Your task to perform on an android device: toggle notifications settings in the gmail app Image 0: 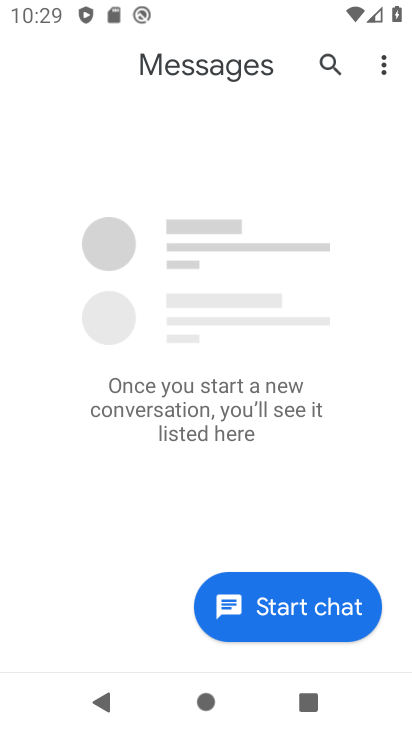
Step 0: press back button
Your task to perform on an android device: toggle notifications settings in the gmail app Image 1: 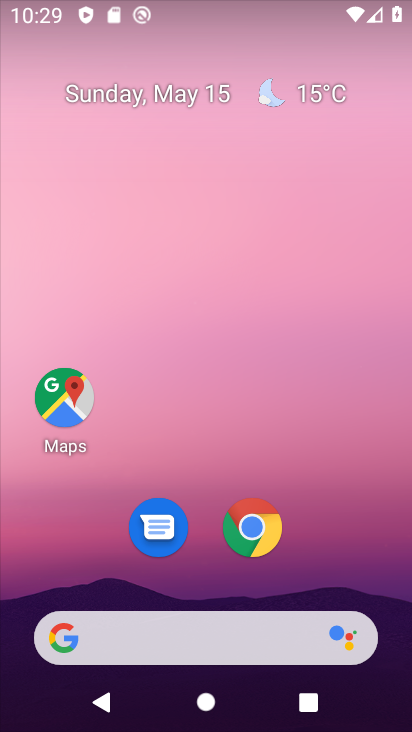
Step 1: drag from (333, 564) to (309, 71)
Your task to perform on an android device: toggle notifications settings in the gmail app Image 2: 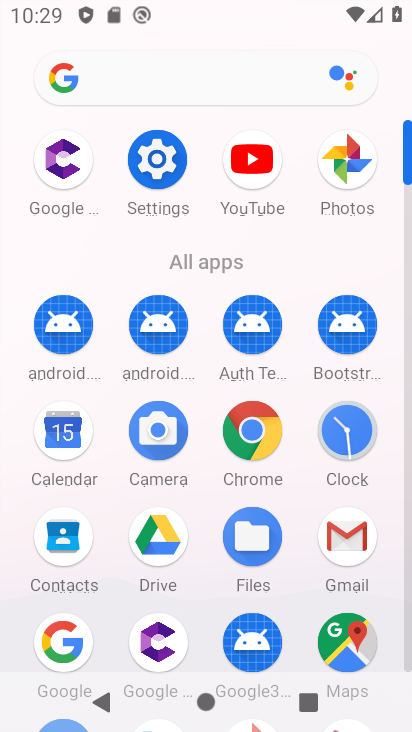
Step 2: click (349, 538)
Your task to perform on an android device: toggle notifications settings in the gmail app Image 3: 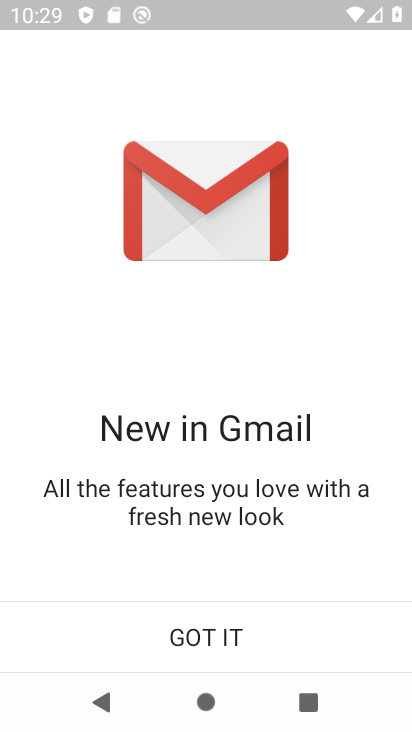
Step 3: click (218, 631)
Your task to perform on an android device: toggle notifications settings in the gmail app Image 4: 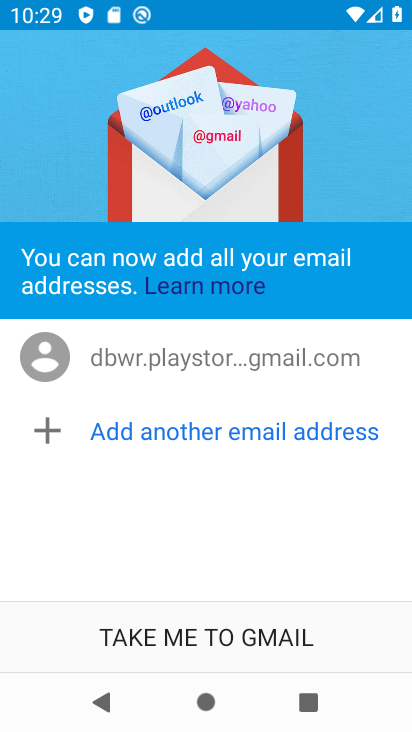
Step 4: click (218, 631)
Your task to perform on an android device: toggle notifications settings in the gmail app Image 5: 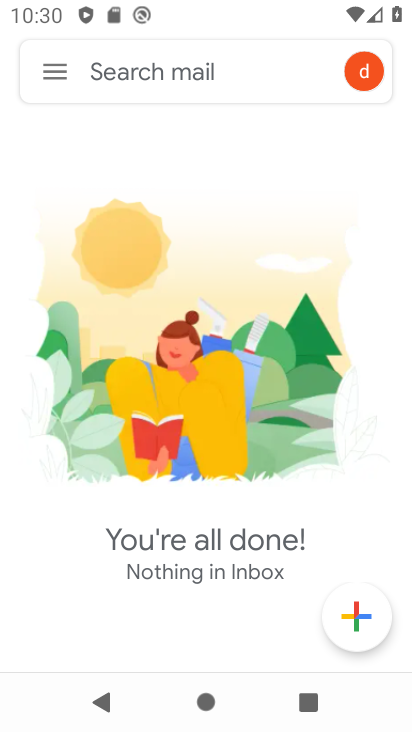
Step 5: click (55, 73)
Your task to perform on an android device: toggle notifications settings in the gmail app Image 6: 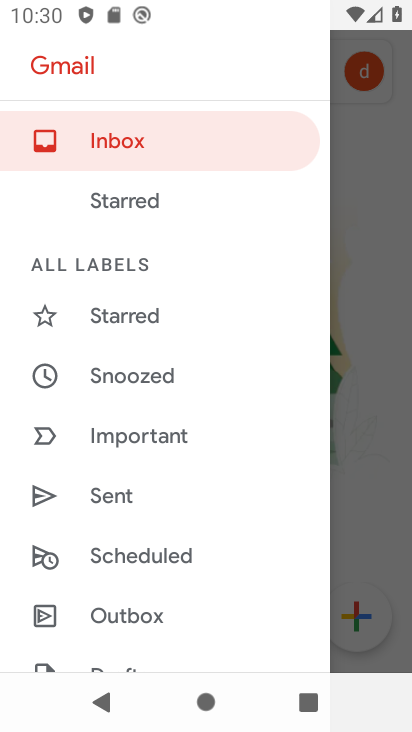
Step 6: drag from (156, 484) to (198, 398)
Your task to perform on an android device: toggle notifications settings in the gmail app Image 7: 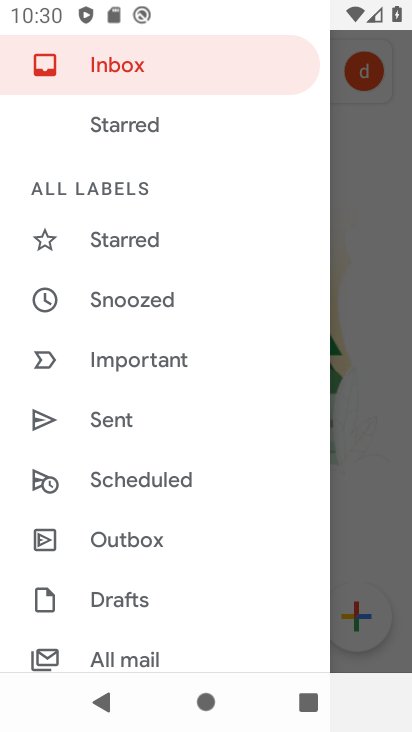
Step 7: drag from (126, 504) to (209, 410)
Your task to perform on an android device: toggle notifications settings in the gmail app Image 8: 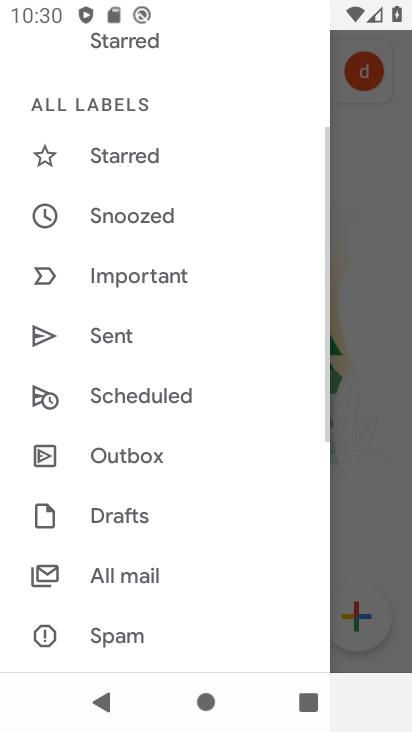
Step 8: drag from (153, 478) to (171, 419)
Your task to perform on an android device: toggle notifications settings in the gmail app Image 9: 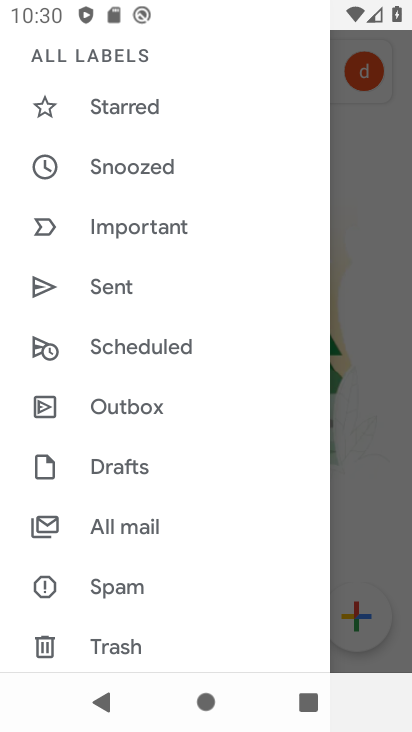
Step 9: drag from (120, 562) to (183, 415)
Your task to perform on an android device: toggle notifications settings in the gmail app Image 10: 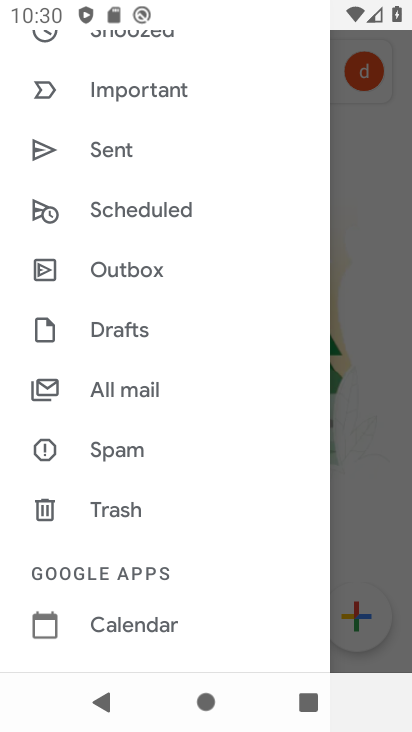
Step 10: drag from (120, 547) to (187, 399)
Your task to perform on an android device: toggle notifications settings in the gmail app Image 11: 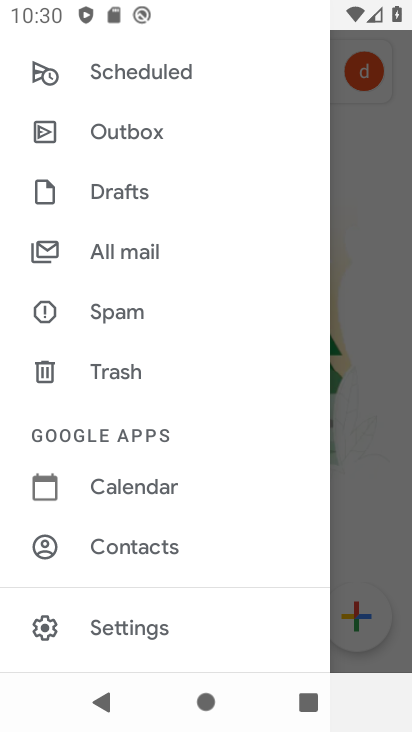
Step 11: click (129, 621)
Your task to perform on an android device: toggle notifications settings in the gmail app Image 12: 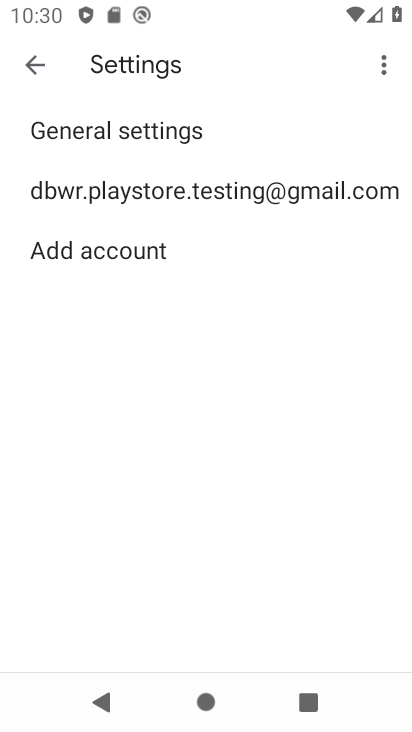
Step 12: click (288, 195)
Your task to perform on an android device: toggle notifications settings in the gmail app Image 13: 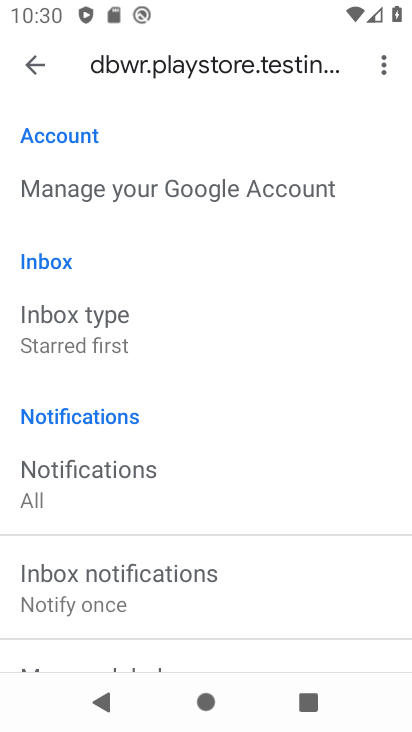
Step 13: drag from (192, 457) to (237, 345)
Your task to perform on an android device: toggle notifications settings in the gmail app Image 14: 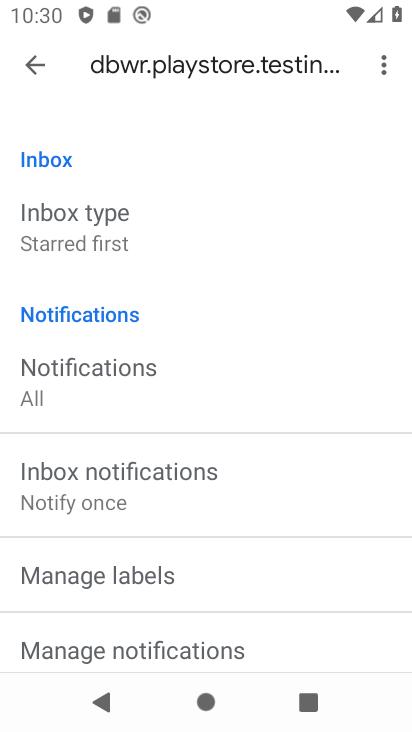
Step 14: drag from (215, 432) to (258, 339)
Your task to perform on an android device: toggle notifications settings in the gmail app Image 15: 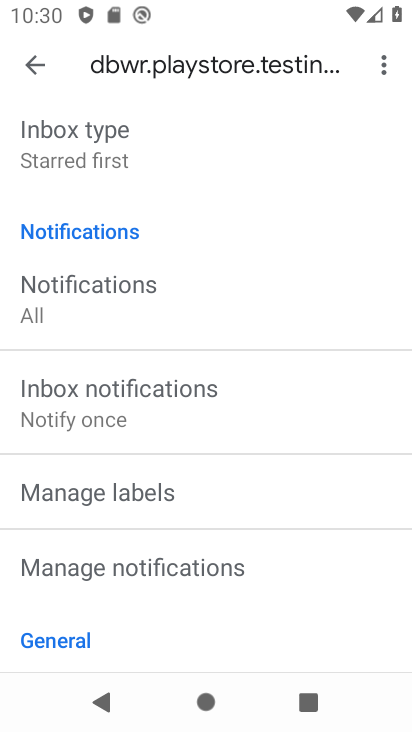
Step 15: click (165, 562)
Your task to perform on an android device: toggle notifications settings in the gmail app Image 16: 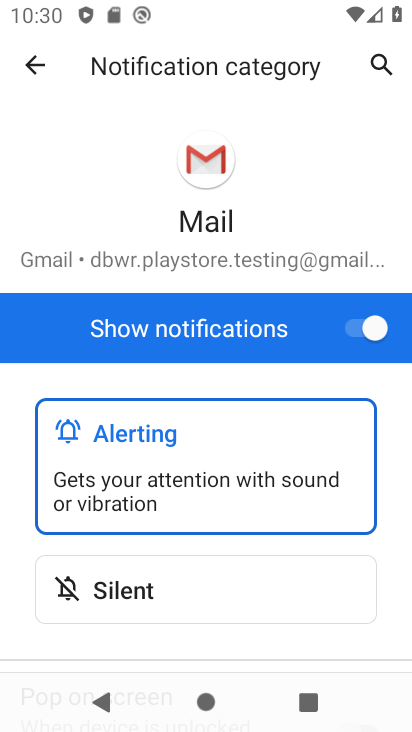
Step 16: click (361, 327)
Your task to perform on an android device: toggle notifications settings in the gmail app Image 17: 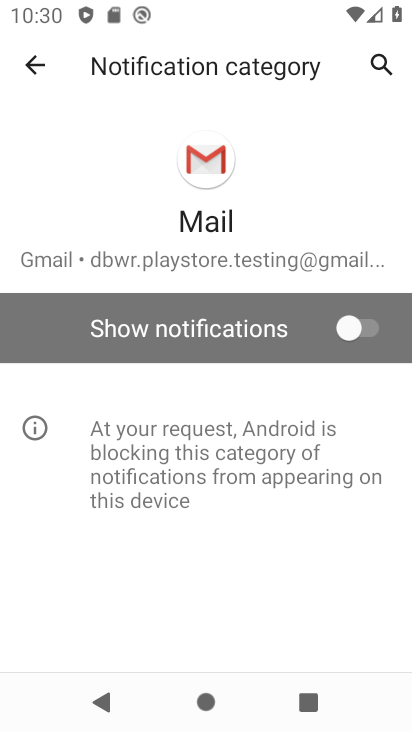
Step 17: task complete